Your task to perform on an android device: Show me the best rated 42 inch TV on Walmart. Image 0: 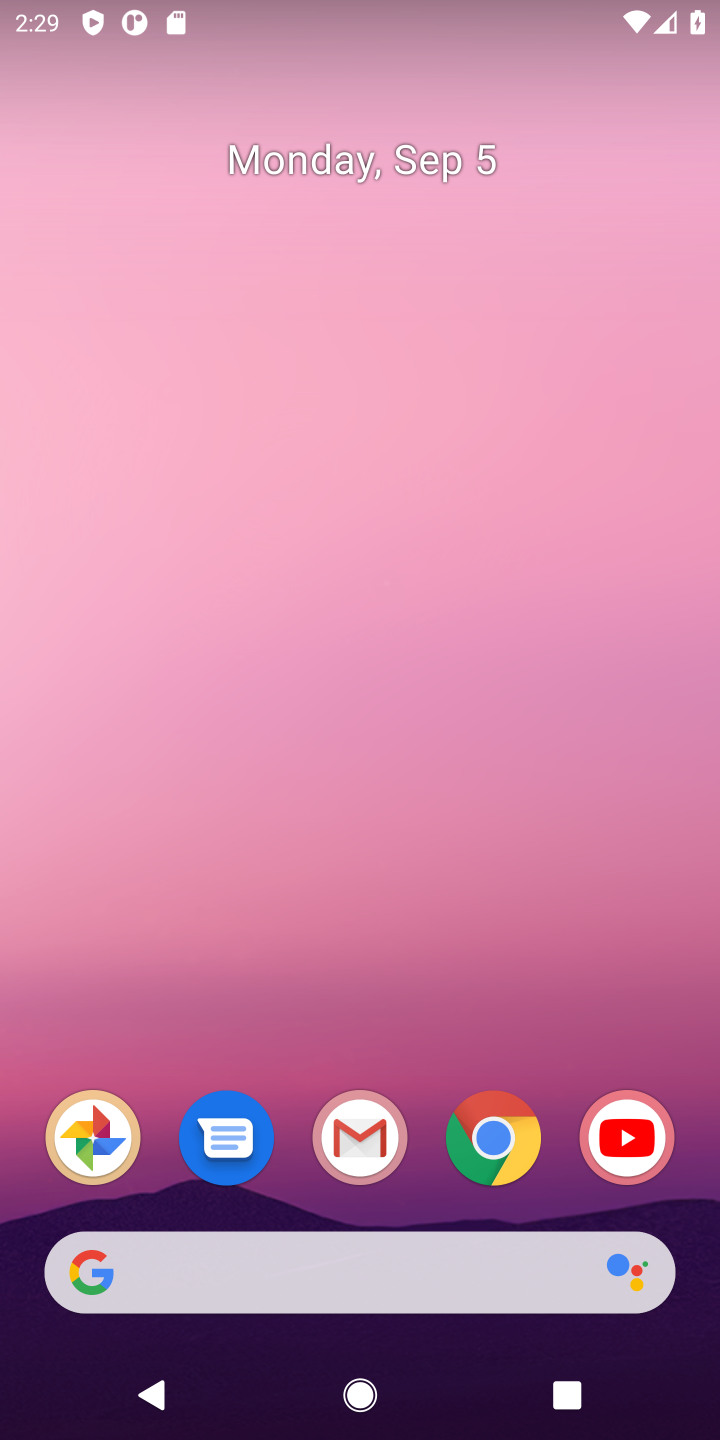
Step 0: click (495, 1151)
Your task to perform on an android device: Show me the best rated 42 inch TV on Walmart. Image 1: 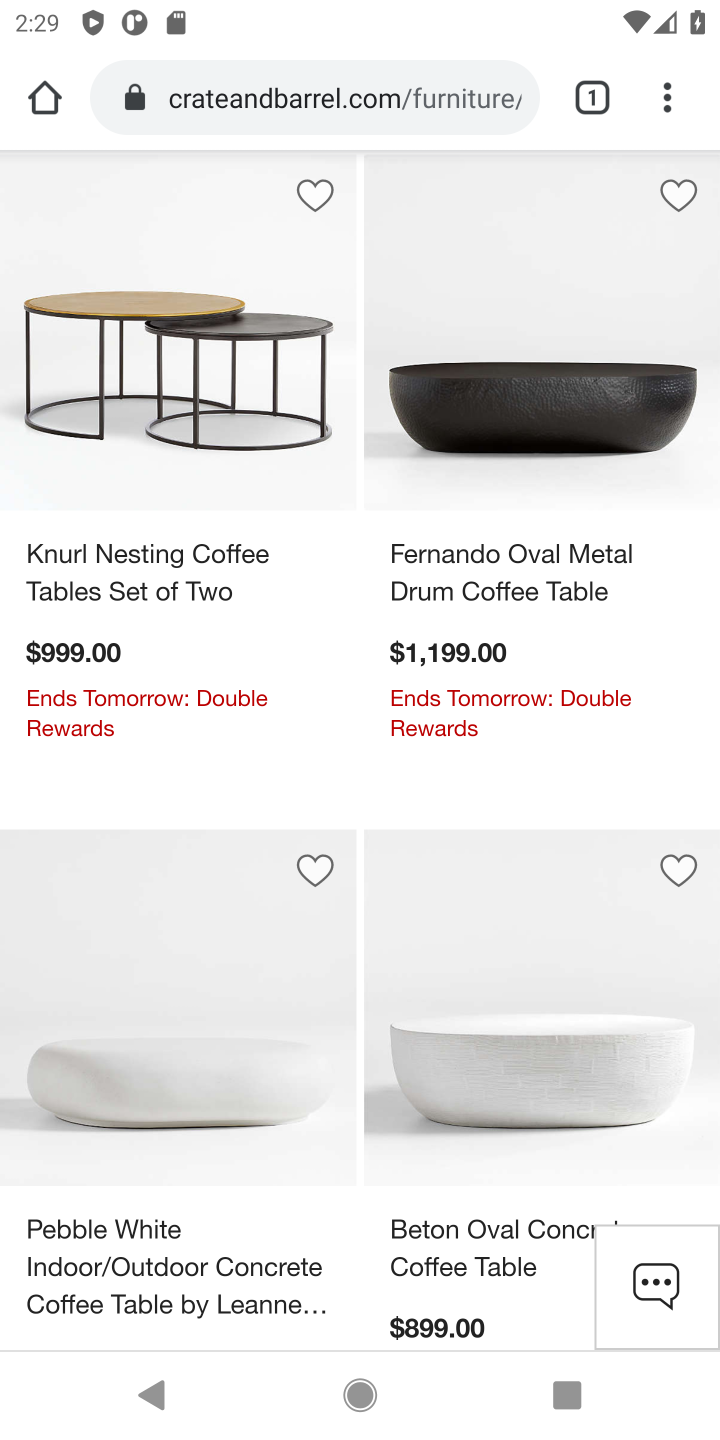
Step 1: click (354, 84)
Your task to perform on an android device: Show me the best rated 42 inch TV on Walmart. Image 2: 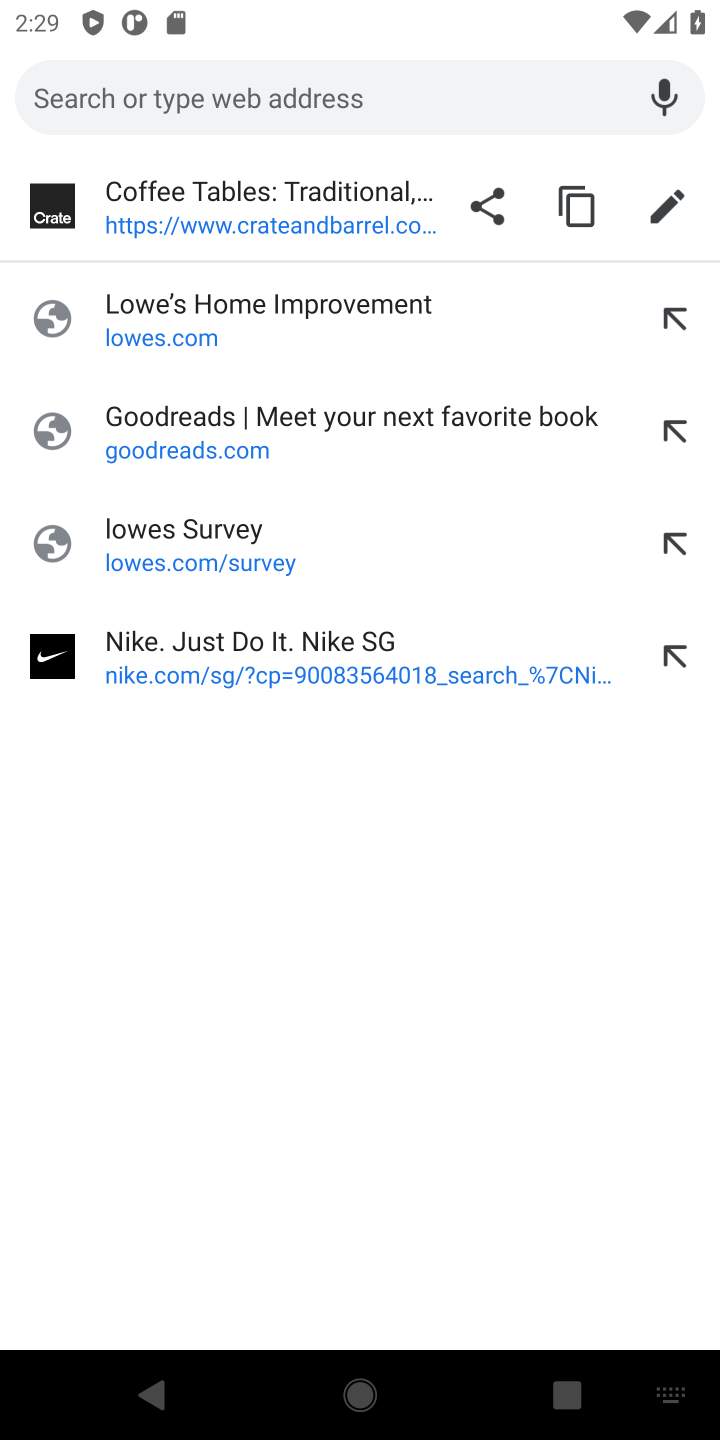
Step 2: type "walmart"
Your task to perform on an android device: Show me the best rated 42 inch TV on Walmart. Image 3: 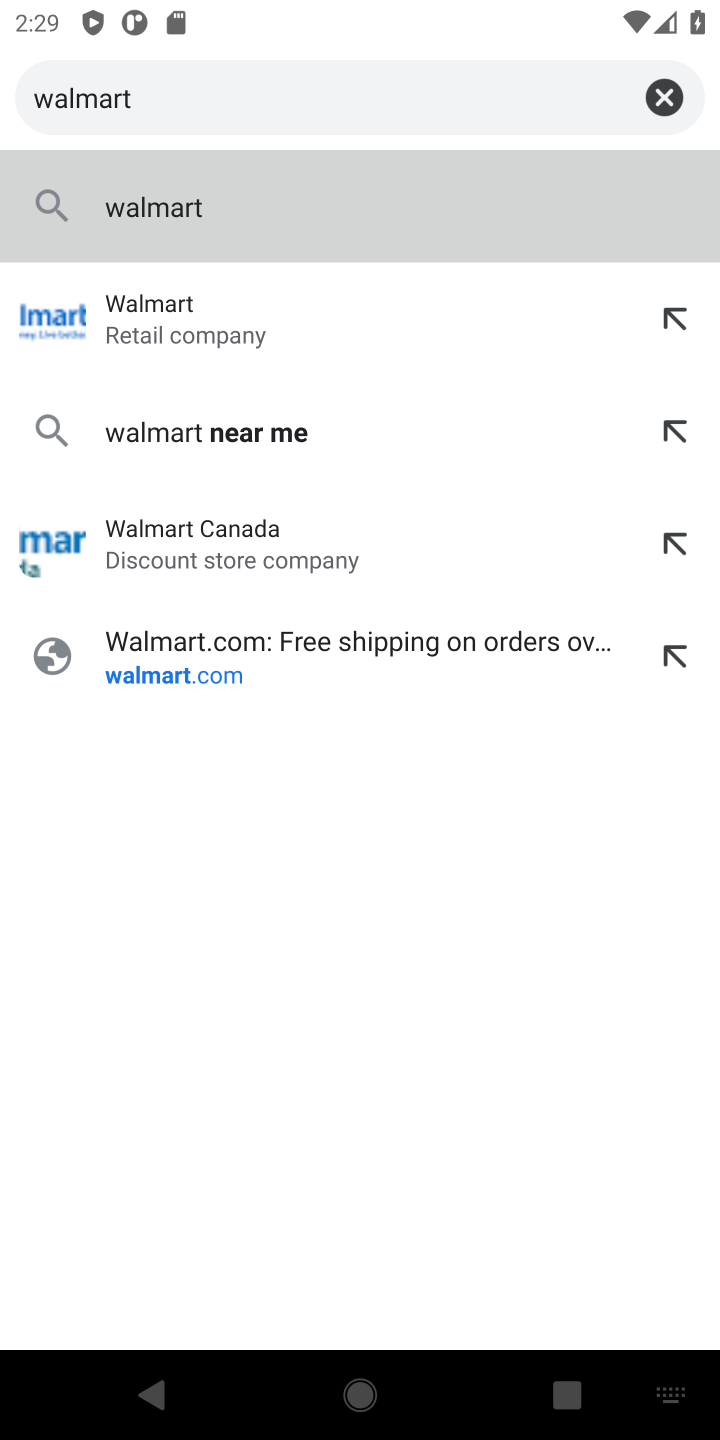
Step 3: click (157, 311)
Your task to perform on an android device: Show me the best rated 42 inch TV on Walmart. Image 4: 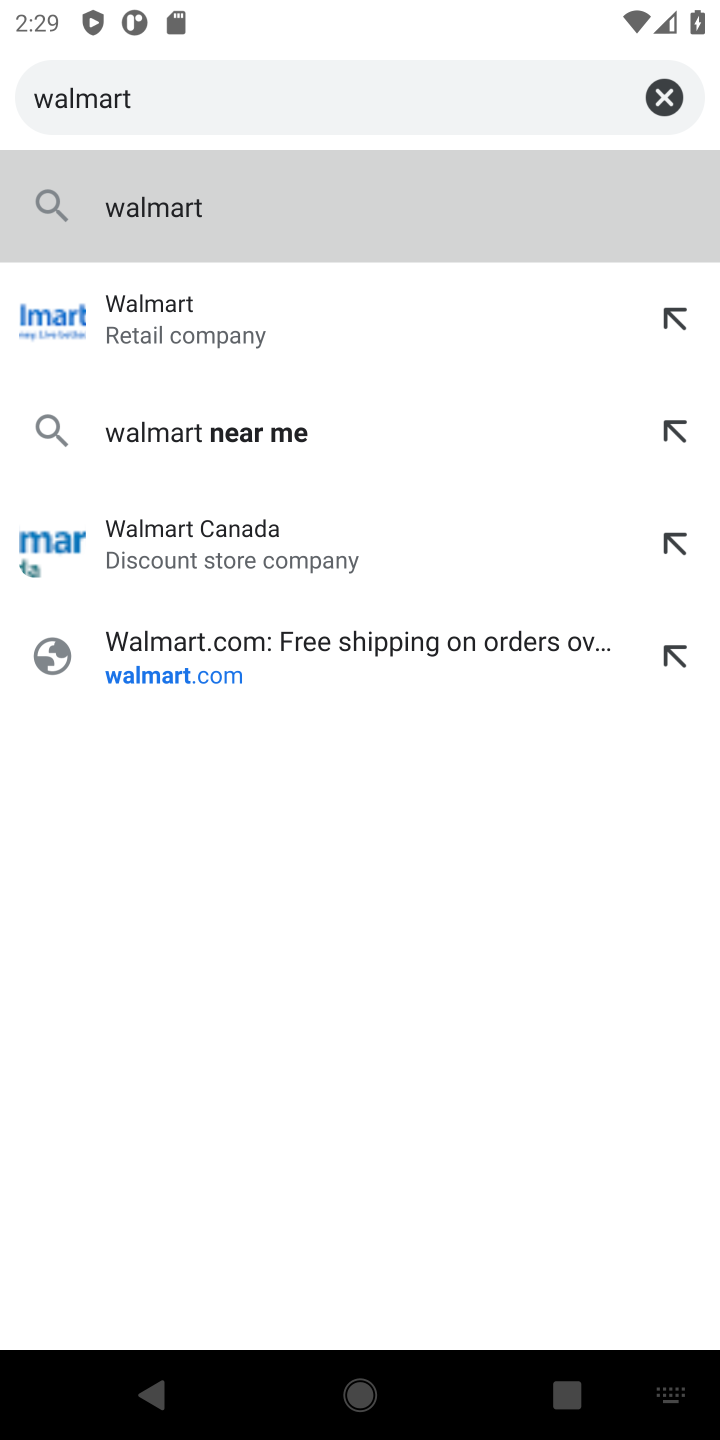
Step 4: click (172, 333)
Your task to perform on an android device: Show me the best rated 42 inch TV on Walmart. Image 5: 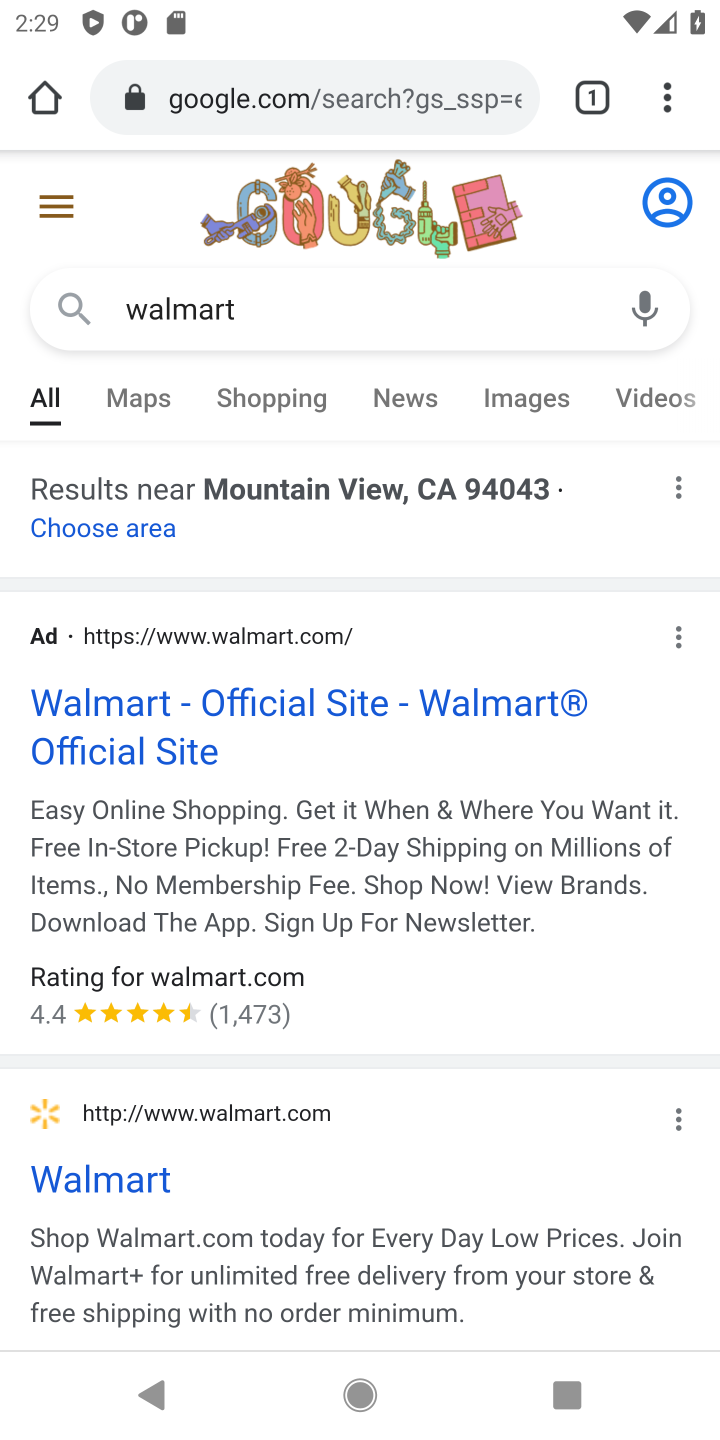
Step 5: click (103, 1177)
Your task to perform on an android device: Show me the best rated 42 inch TV on Walmart. Image 6: 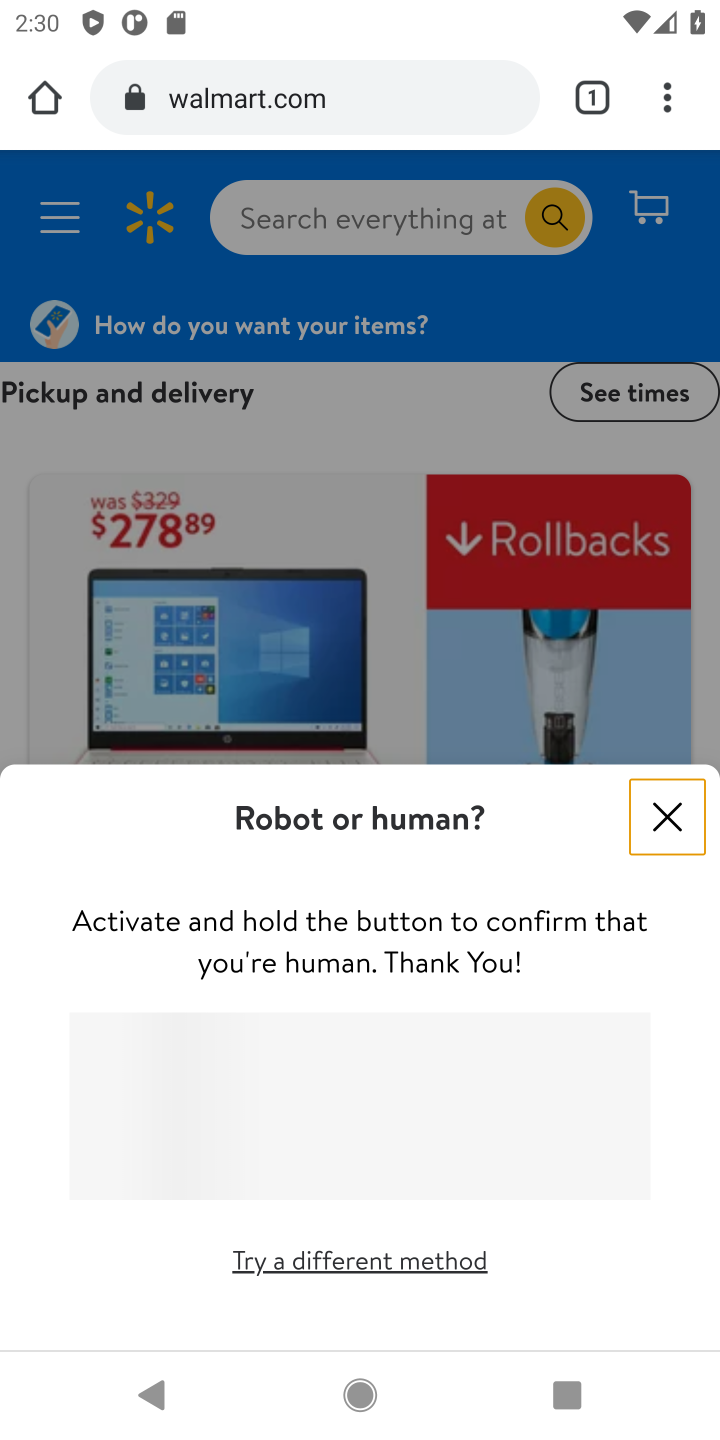
Step 6: click (305, 213)
Your task to perform on an android device: Show me the best rated 42 inch TV on Walmart. Image 7: 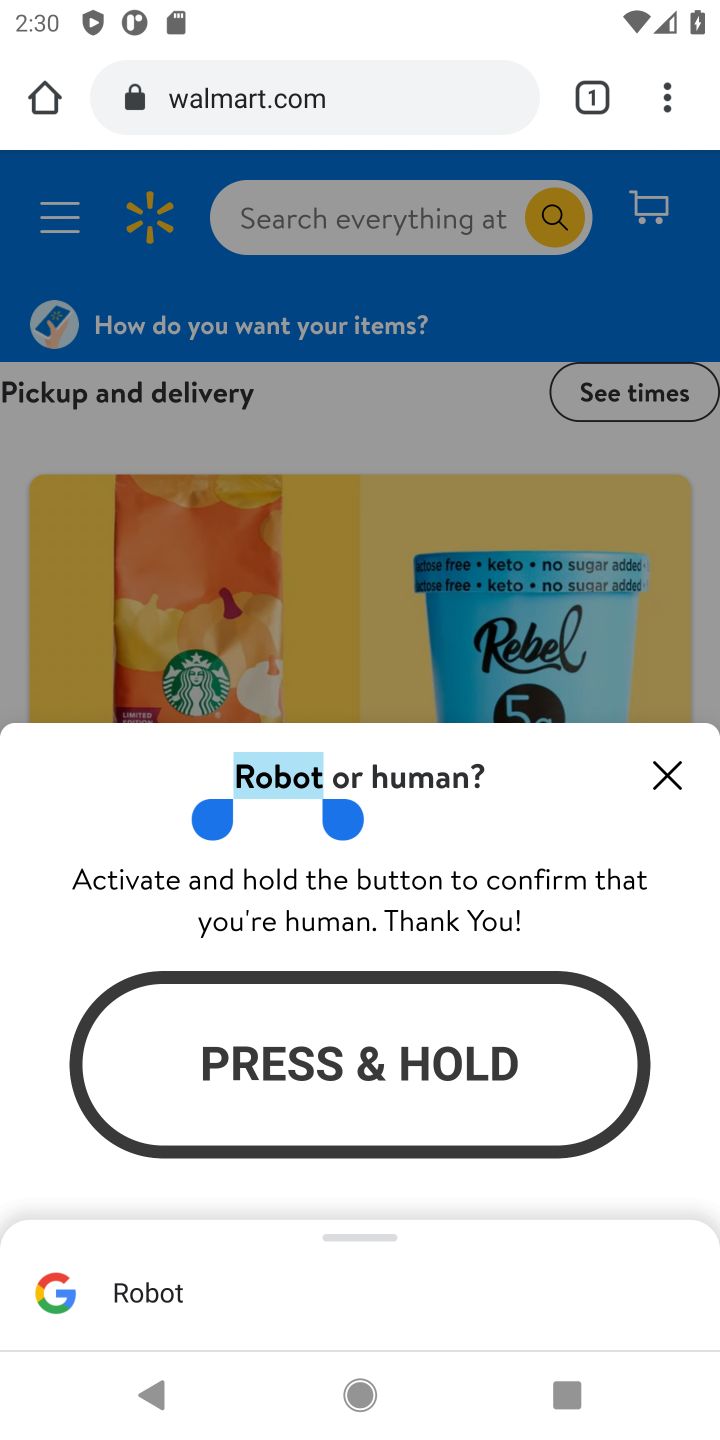
Step 7: click (319, 220)
Your task to perform on an android device: Show me the best rated 42 inch TV on Walmart. Image 8: 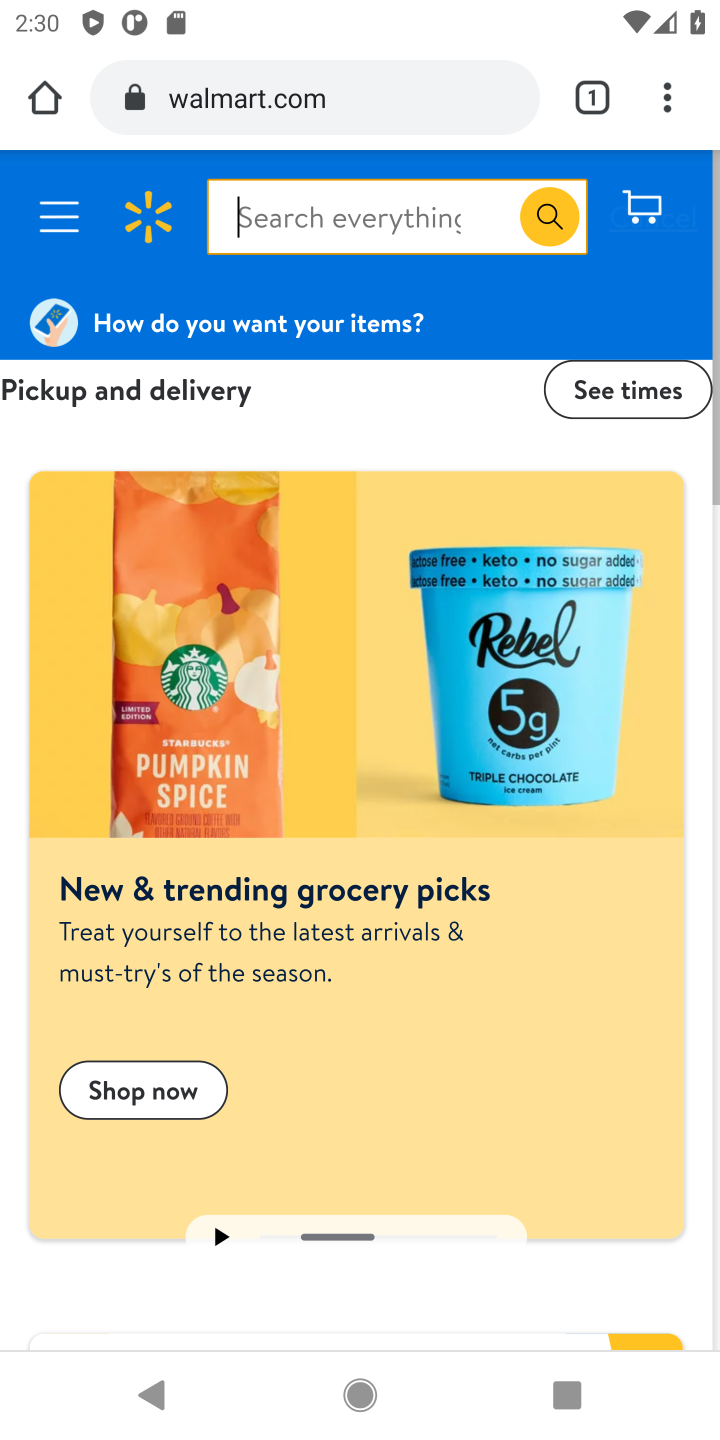
Step 8: click (300, 232)
Your task to perform on an android device: Show me the best rated 42 inch TV on Walmart. Image 9: 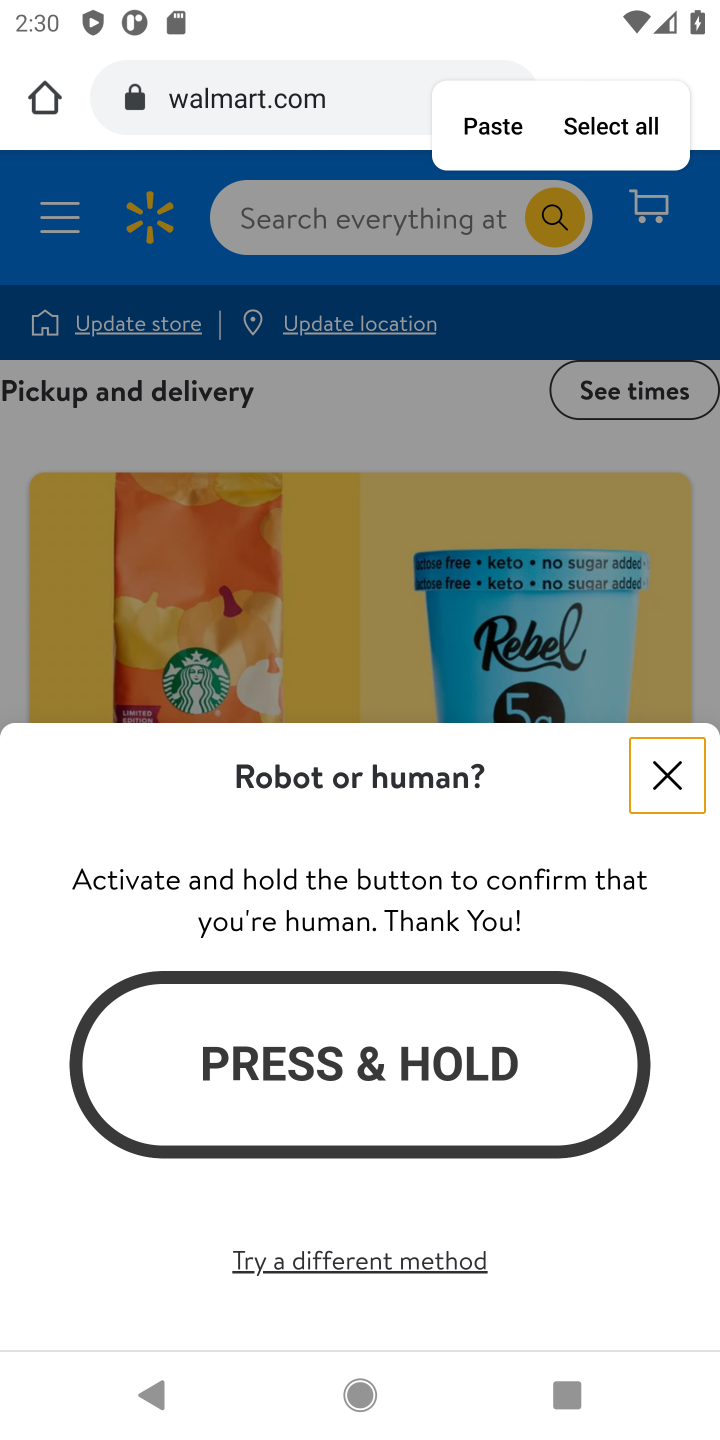
Step 9: type "42 inch tv"
Your task to perform on an android device: Show me the best rated 42 inch TV on Walmart. Image 10: 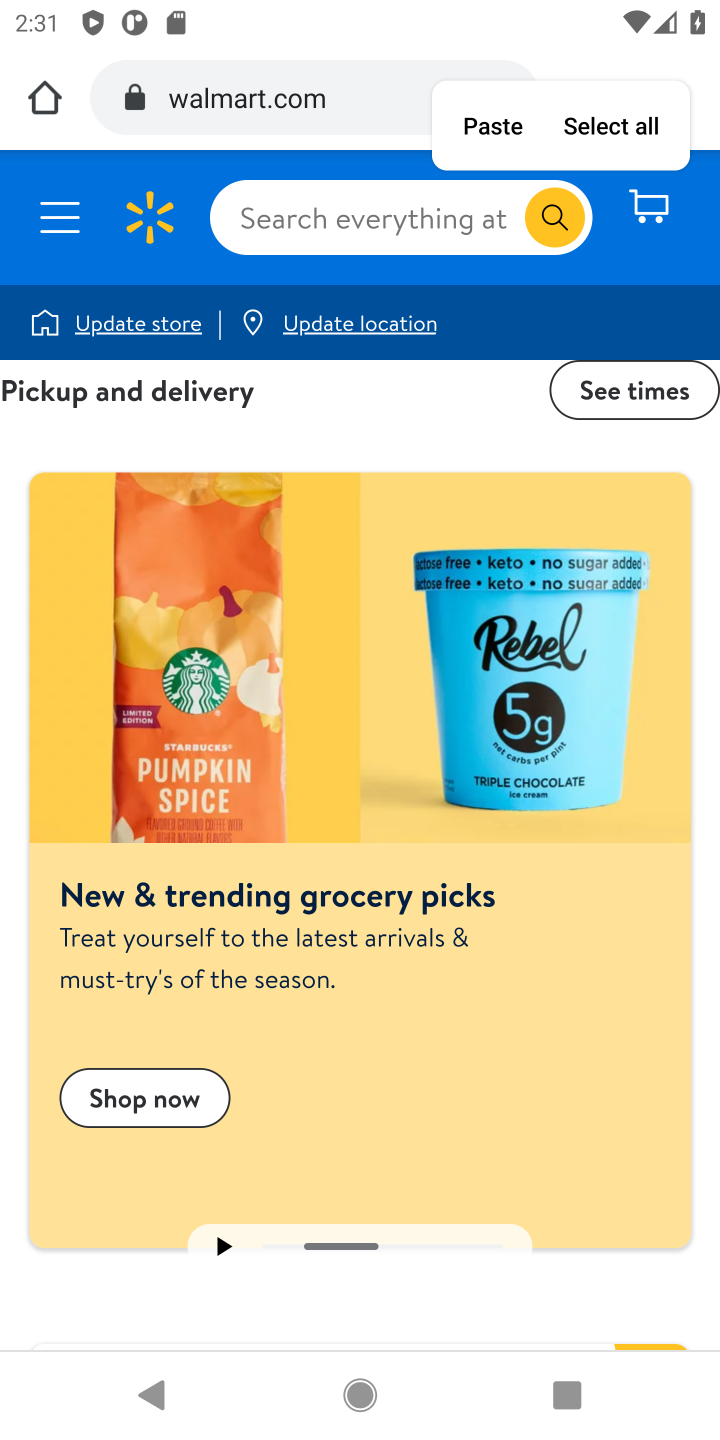
Step 10: click (259, 210)
Your task to perform on an android device: Show me the best rated 42 inch TV on Walmart. Image 11: 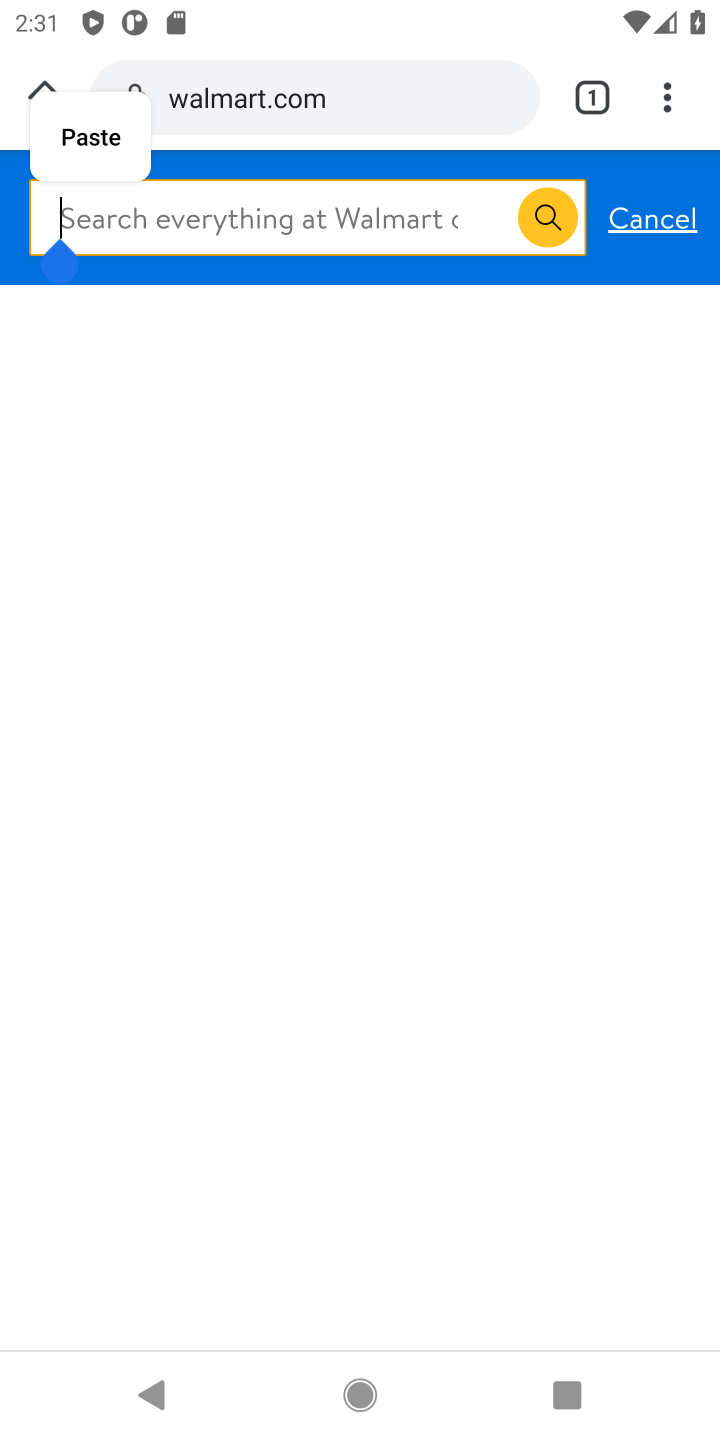
Step 11: type "42 inch tv"
Your task to perform on an android device: Show me the best rated 42 inch TV on Walmart. Image 12: 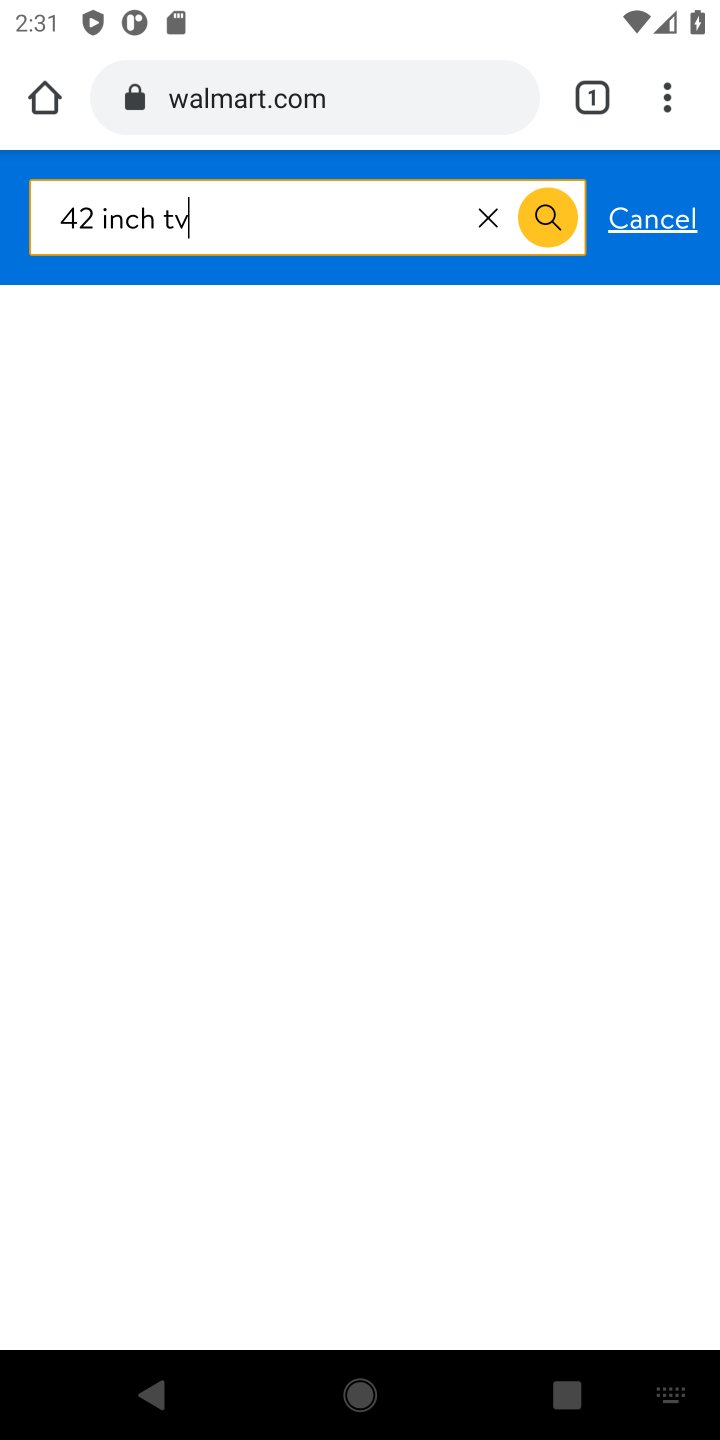
Step 12: click (546, 198)
Your task to perform on an android device: Show me the best rated 42 inch TV on Walmart. Image 13: 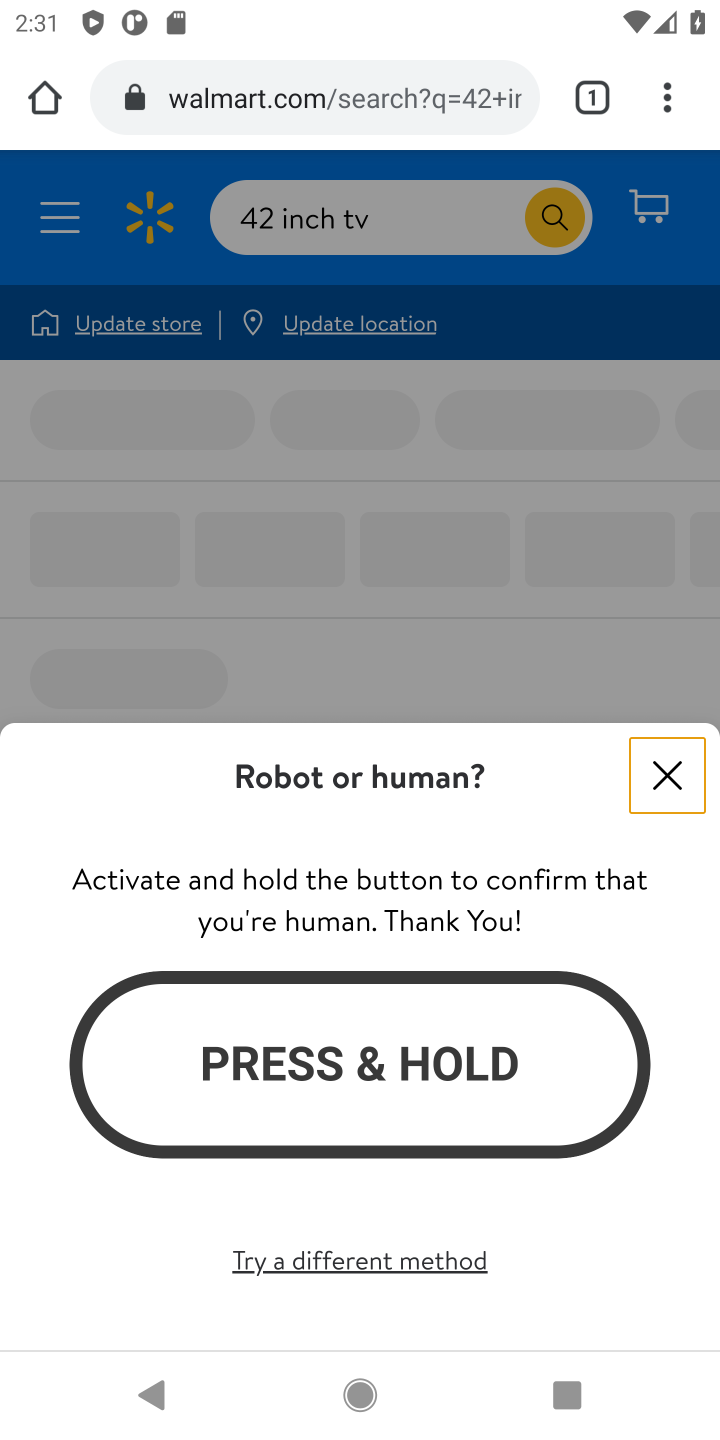
Step 13: click (657, 770)
Your task to perform on an android device: Show me the best rated 42 inch TV on Walmart. Image 14: 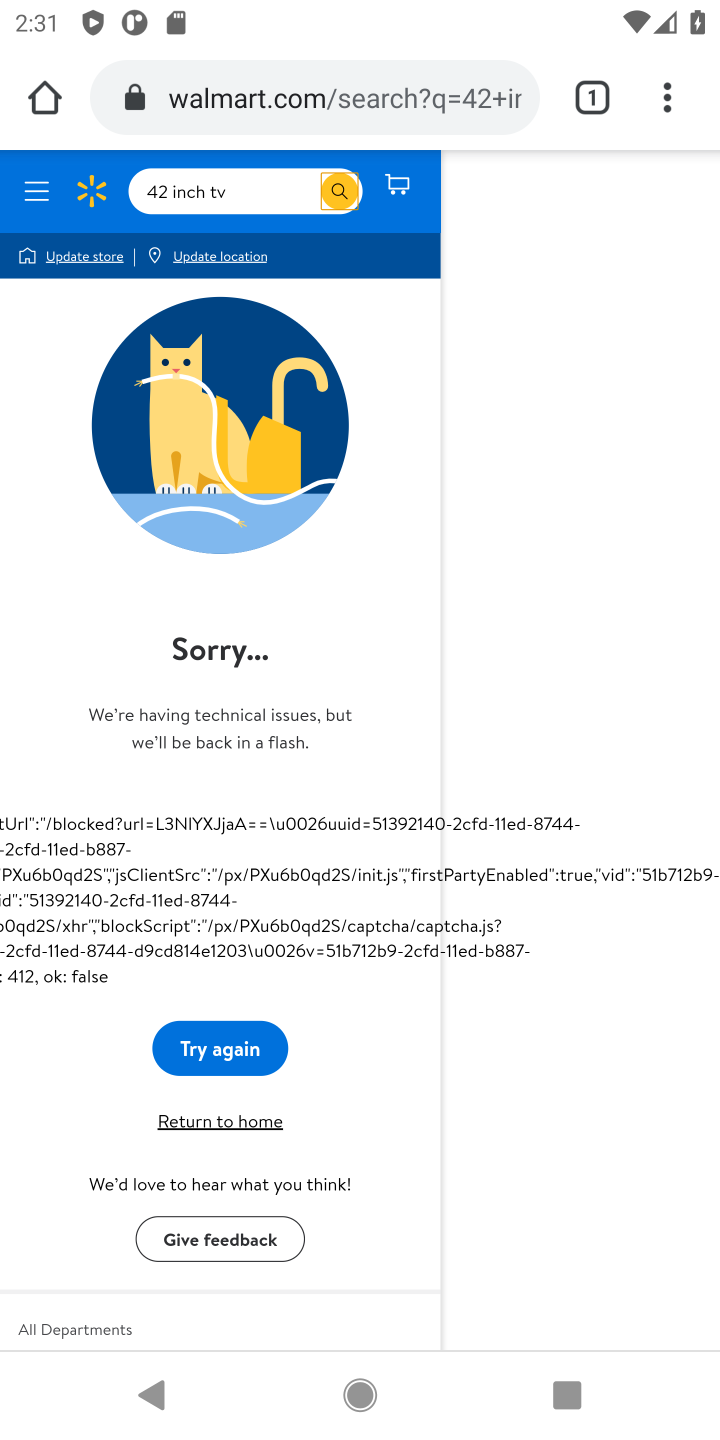
Step 14: task complete